Your task to perform on an android device: open sync settings in chrome Image 0: 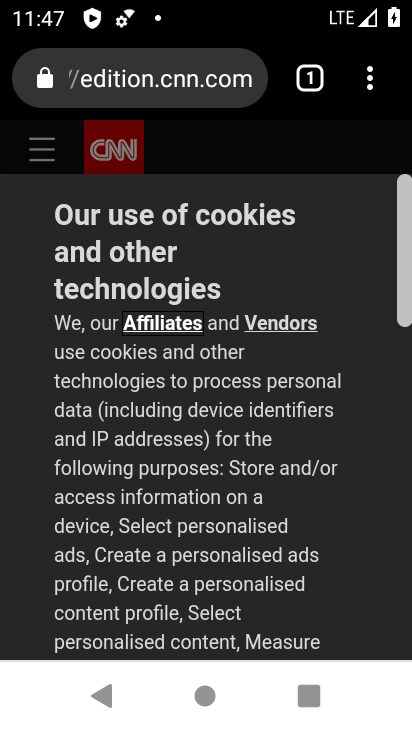
Step 0: press home button
Your task to perform on an android device: open sync settings in chrome Image 1: 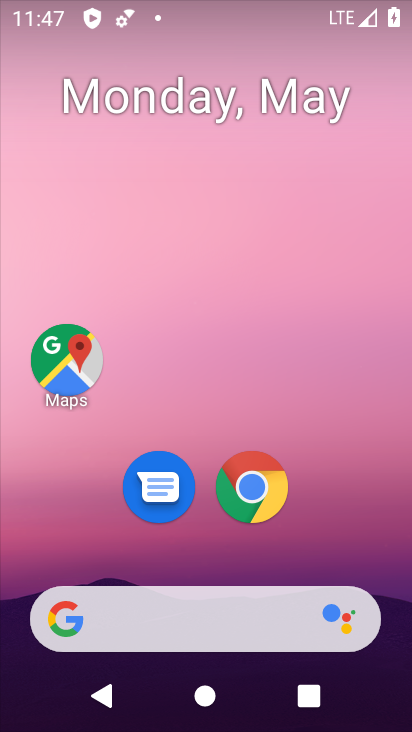
Step 1: click (260, 479)
Your task to perform on an android device: open sync settings in chrome Image 2: 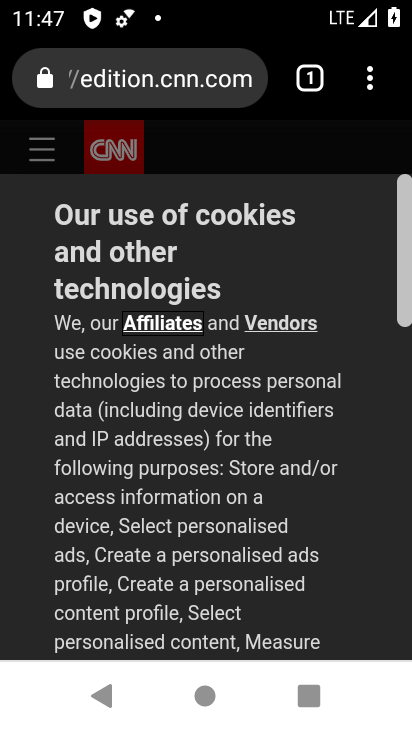
Step 2: click (370, 72)
Your task to perform on an android device: open sync settings in chrome Image 3: 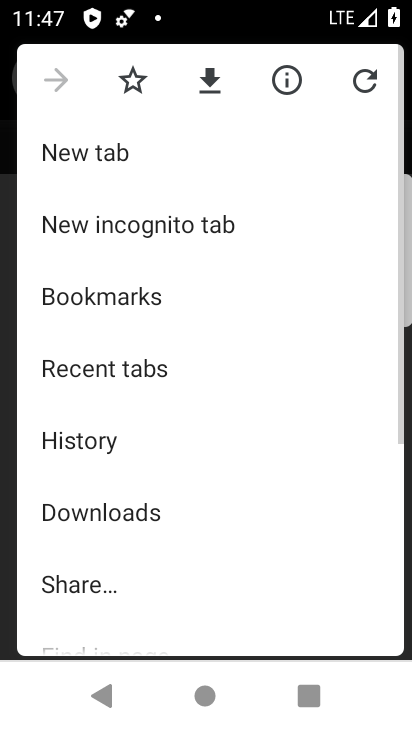
Step 3: drag from (91, 624) to (315, 149)
Your task to perform on an android device: open sync settings in chrome Image 4: 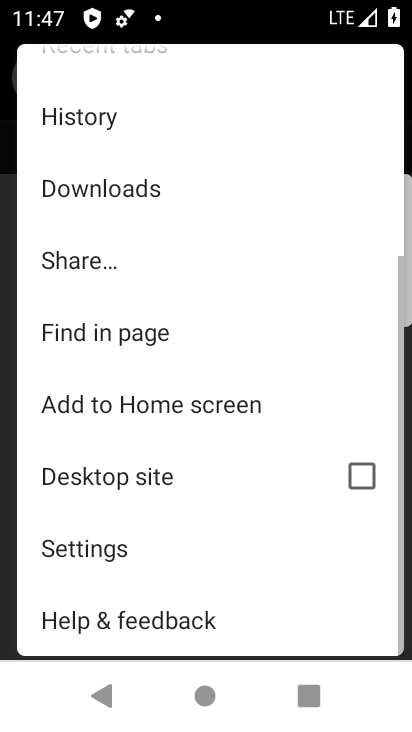
Step 4: click (94, 542)
Your task to perform on an android device: open sync settings in chrome Image 5: 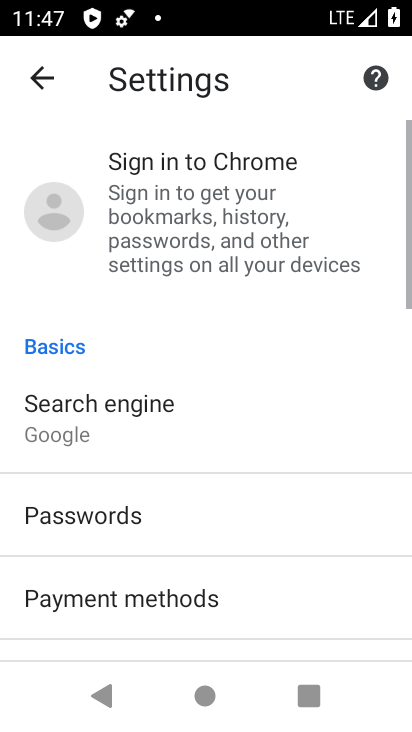
Step 5: drag from (99, 560) to (279, 235)
Your task to perform on an android device: open sync settings in chrome Image 6: 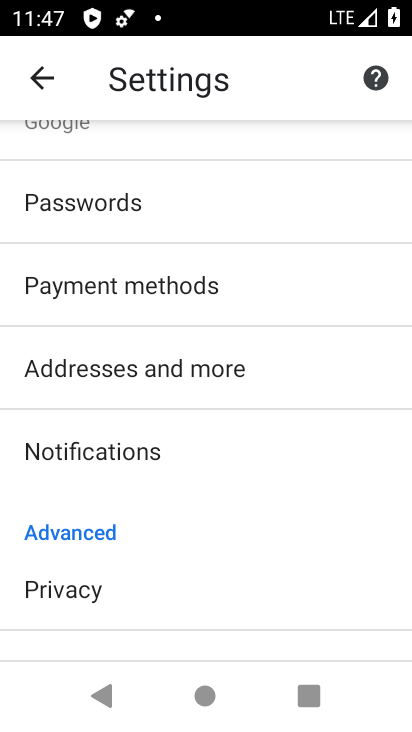
Step 6: drag from (88, 635) to (268, 223)
Your task to perform on an android device: open sync settings in chrome Image 7: 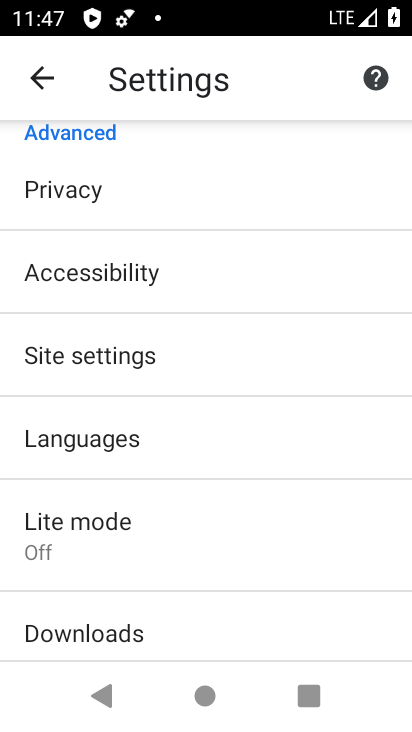
Step 7: click (85, 340)
Your task to perform on an android device: open sync settings in chrome Image 8: 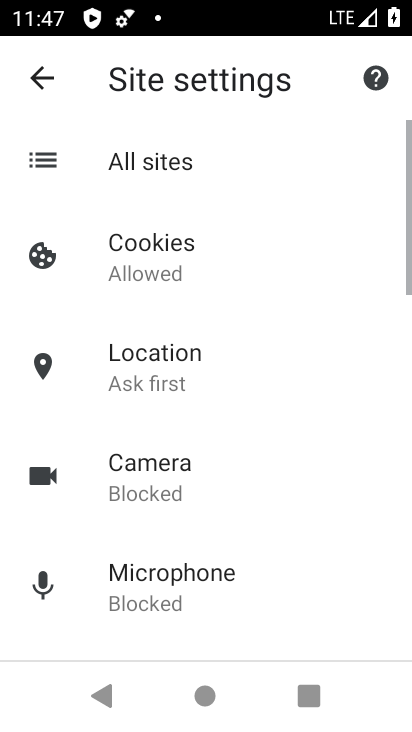
Step 8: drag from (43, 448) to (268, 144)
Your task to perform on an android device: open sync settings in chrome Image 9: 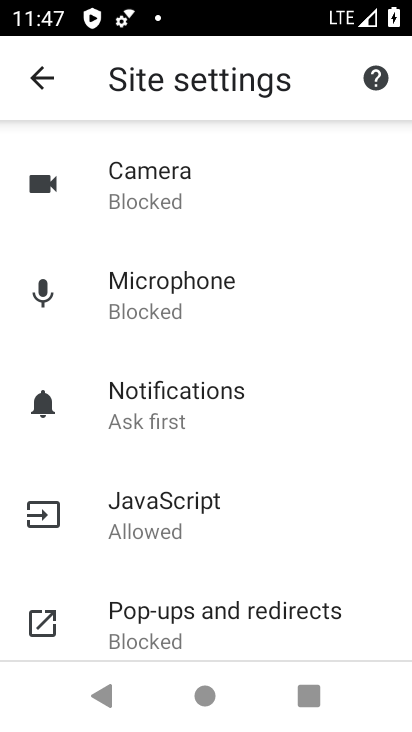
Step 9: drag from (67, 644) to (261, 242)
Your task to perform on an android device: open sync settings in chrome Image 10: 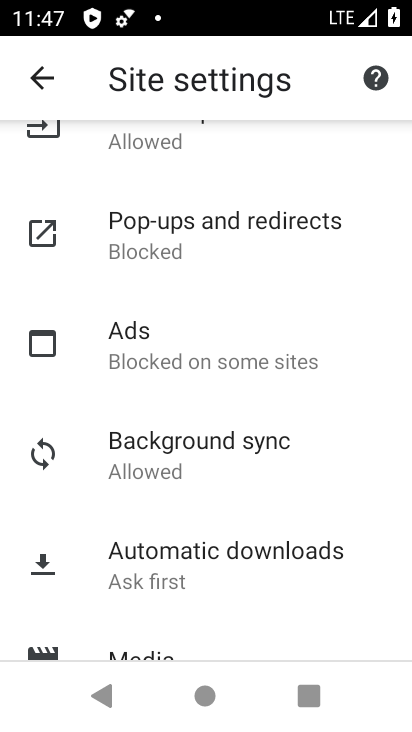
Step 10: click (150, 481)
Your task to perform on an android device: open sync settings in chrome Image 11: 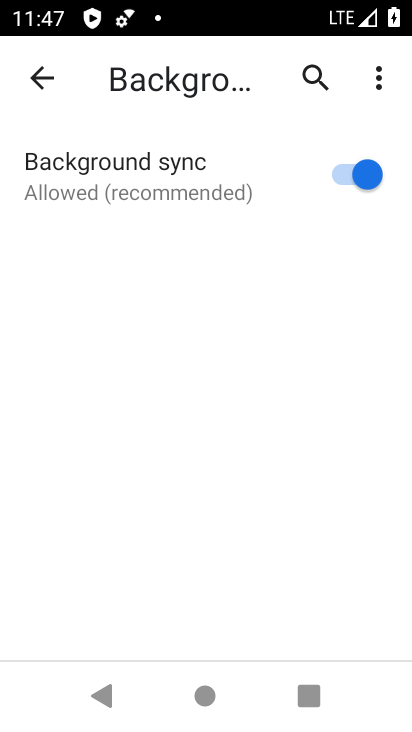
Step 11: task complete